Your task to perform on an android device: Search for vegetarian restaurants on Maps Image 0: 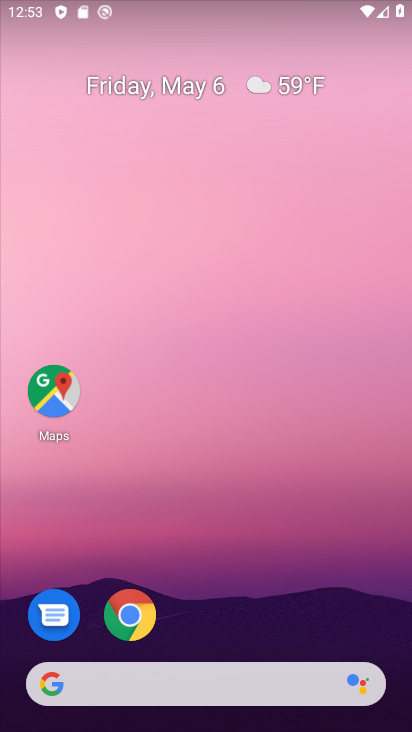
Step 0: drag from (265, 565) to (310, 30)
Your task to perform on an android device: Search for vegetarian restaurants on Maps Image 1: 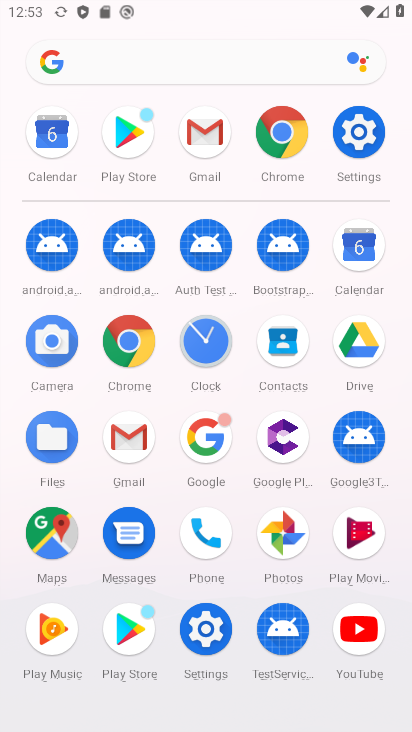
Step 1: click (44, 532)
Your task to perform on an android device: Search for vegetarian restaurants on Maps Image 2: 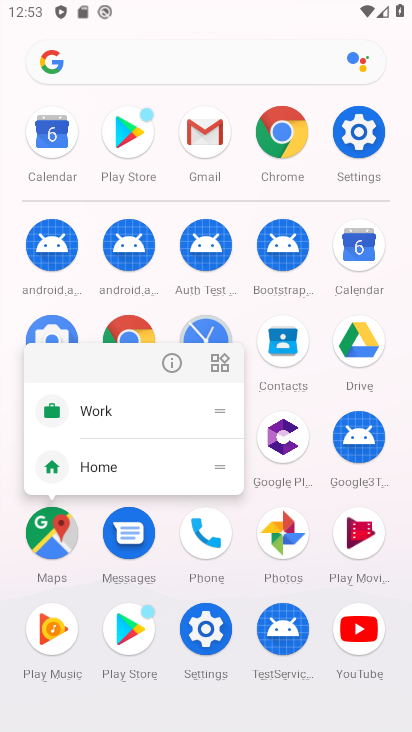
Step 2: click (47, 527)
Your task to perform on an android device: Search for vegetarian restaurants on Maps Image 3: 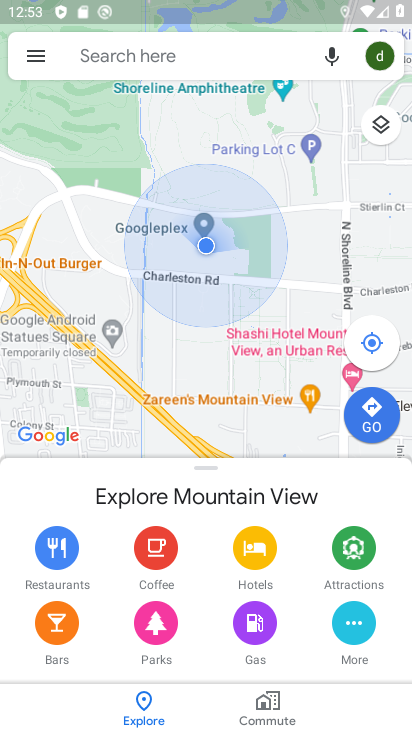
Step 3: click (161, 51)
Your task to perform on an android device: Search for vegetarian restaurants on Maps Image 4: 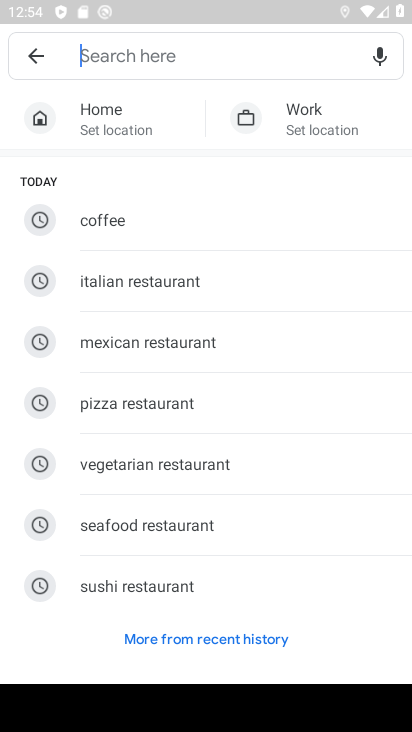
Step 4: click (181, 456)
Your task to perform on an android device: Search for vegetarian restaurants on Maps Image 5: 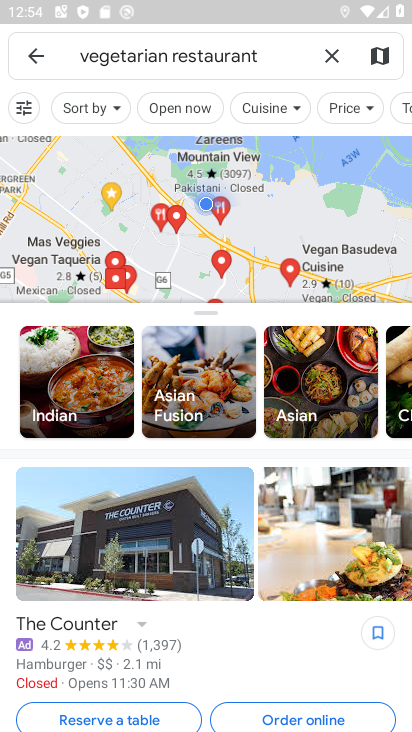
Step 5: task complete